Your task to perform on an android device: Open the web browser Image 0: 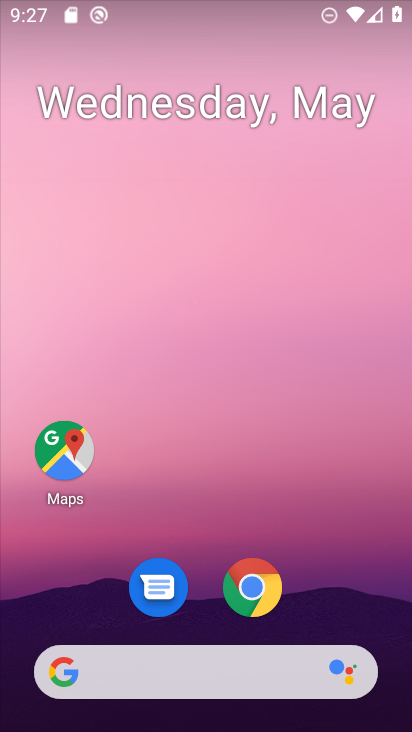
Step 0: click (259, 589)
Your task to perform on an android device: Open the web browser Image 1: 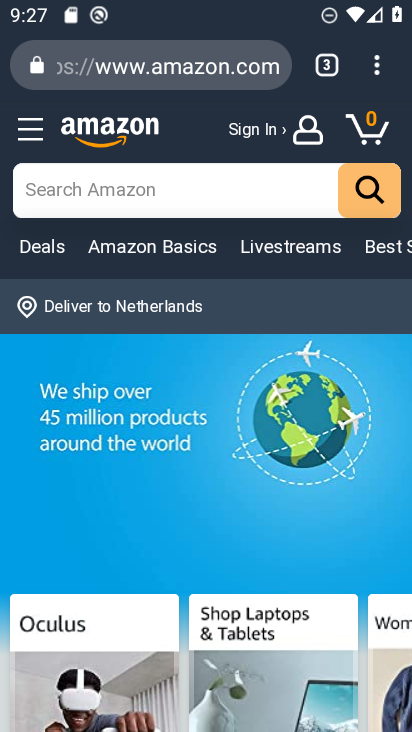
Step 1: task complete